Your task to perform on an android device: Find coffee shops on Maps Image 0: 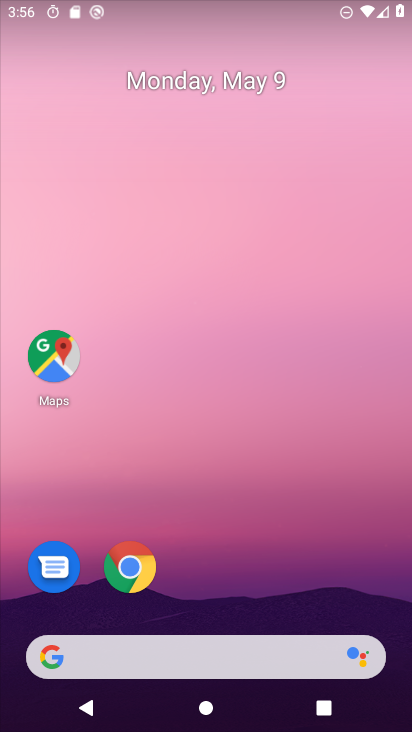
Step 0: click (59, 352)
Your task to perform on an android device: Find coffee shops on Maps Image 1: 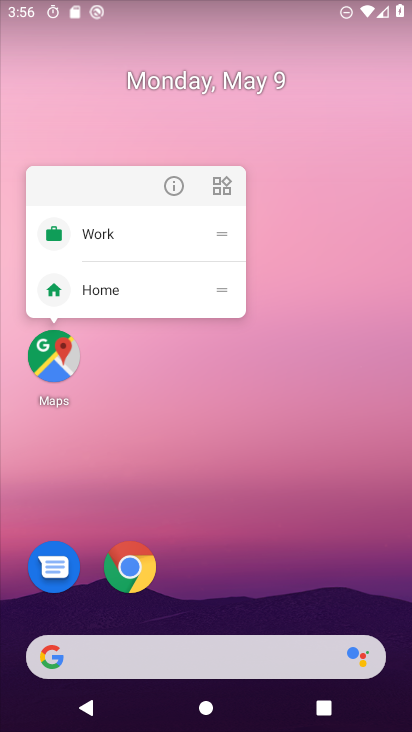
Step 1: click (62, 352)
Your task to perform on an android device: Find coffee shops on Maps Image 2: 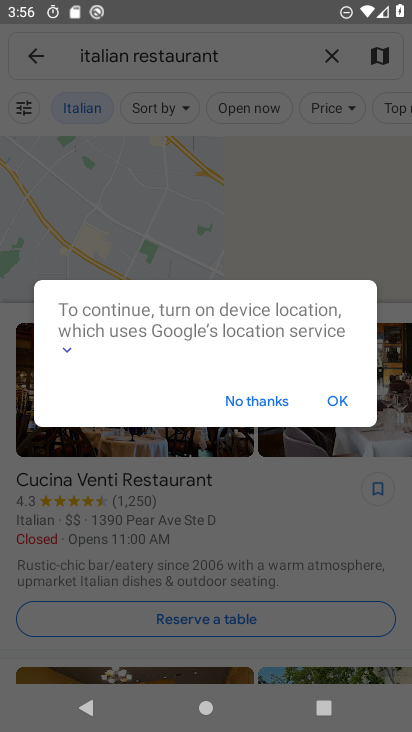
Step 2: click (334, 405)
Your task to perform on an android device: Find coffee shops on Maps Image 3: 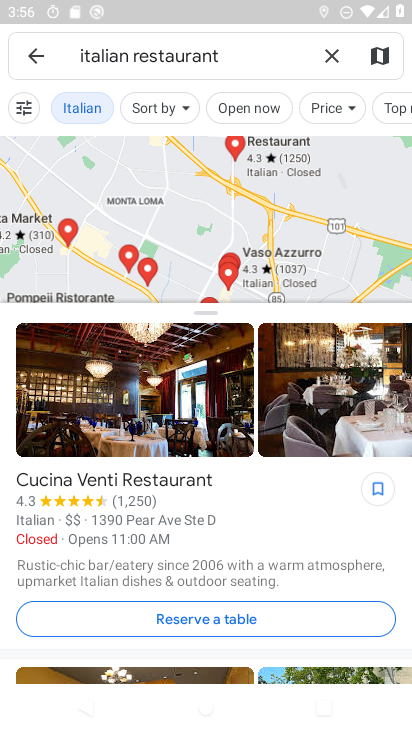
Step 3: click (328, 50)
Your task to perform on an android device: Find coffee shops on Maps Image 4: 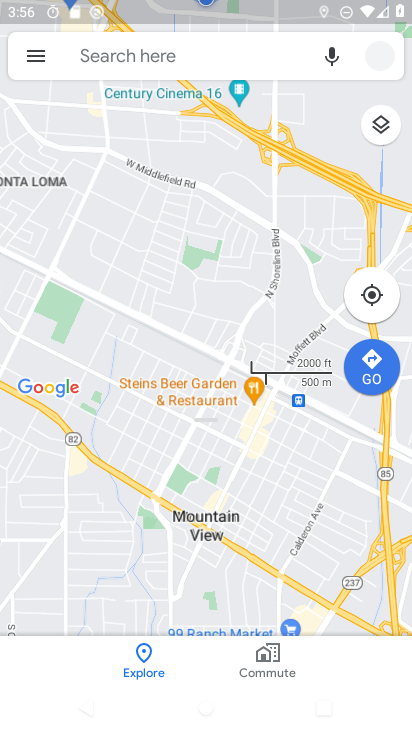
Step 4: click (250, 63)
Your task to perform on an android device: Find coffee shops on Maps Image 5: 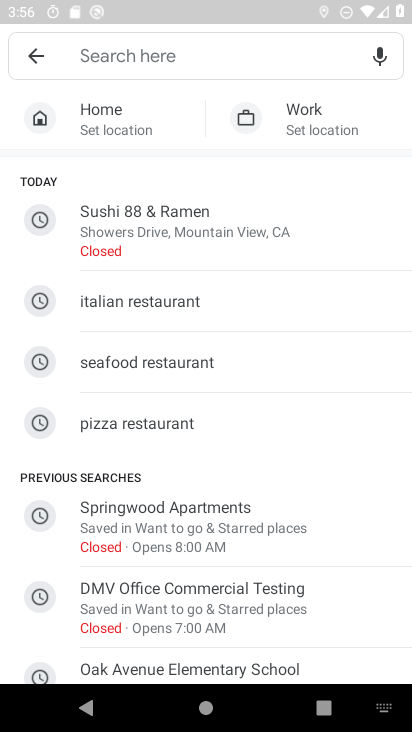
Step 5: type "coffee shops"
Your task to perform on an android device: Find coffee shops on Maps Image 6: 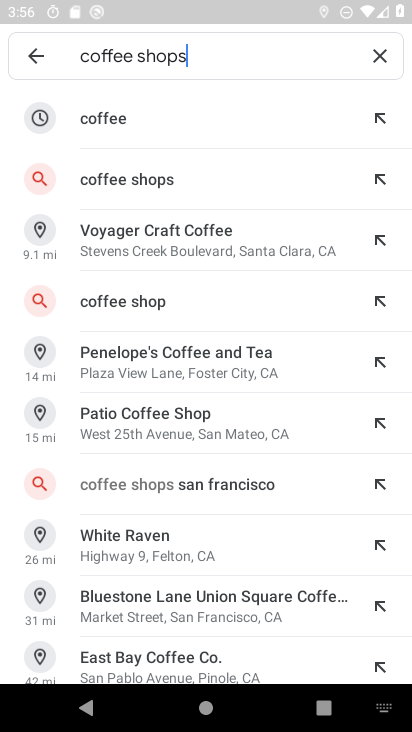
Step 6: click (207, 172)
Your task to perform on an android device: Find coffee shops on Maps Image 7: 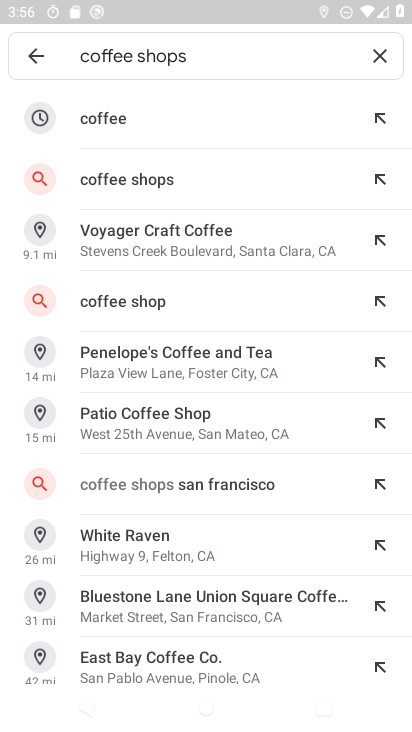
Step 7: click (189, 180)
Your task to perform on an android device: Find coffee shops on Maps Image 8: 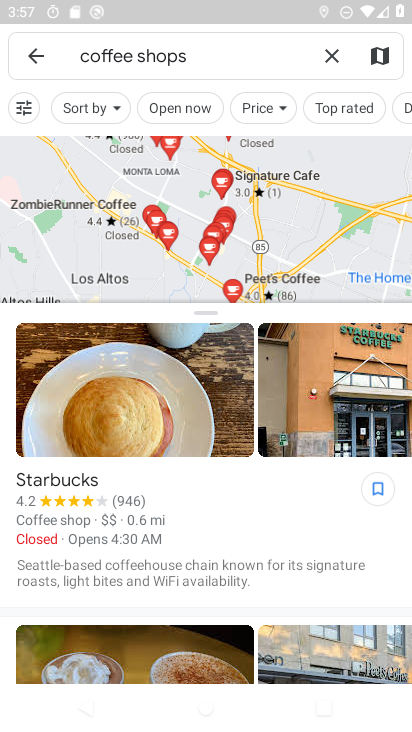
Step 8: task complete